Your task to perform on an android device: toggle javascript in the chrome app Image 0: 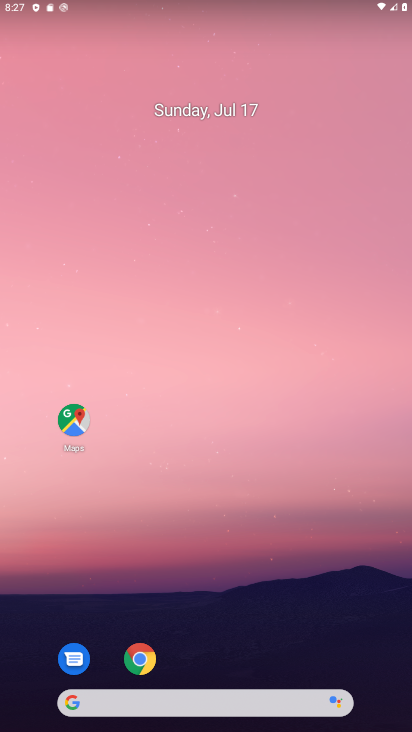
Step 0: click (140, 661)
Your task to perform on an android device: toggle javascript in the chrome app Image 1: 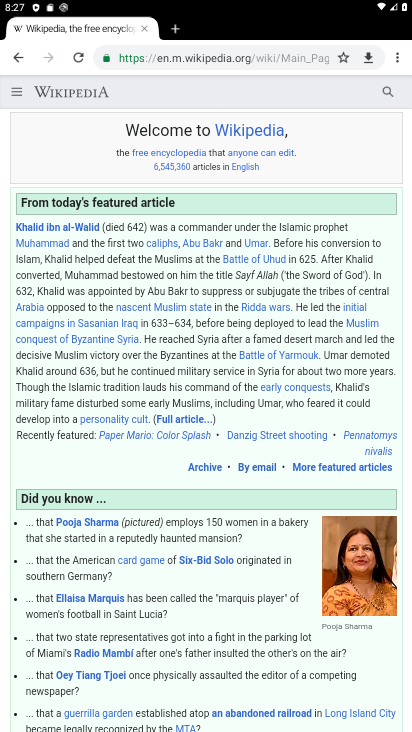
Step 1: click (397, 57)
Your task to perform on an android device: toggle javascript in the chrome app Image 2: 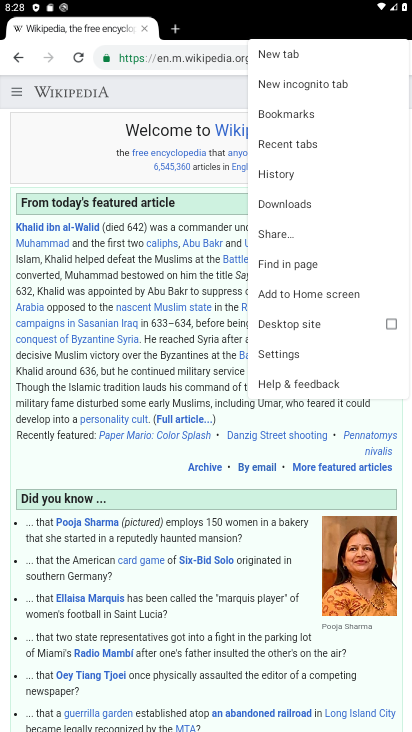
Step 2: click (285, 356)
Your task to perform on an android device: toggle javascript in the chrome app Image 3: 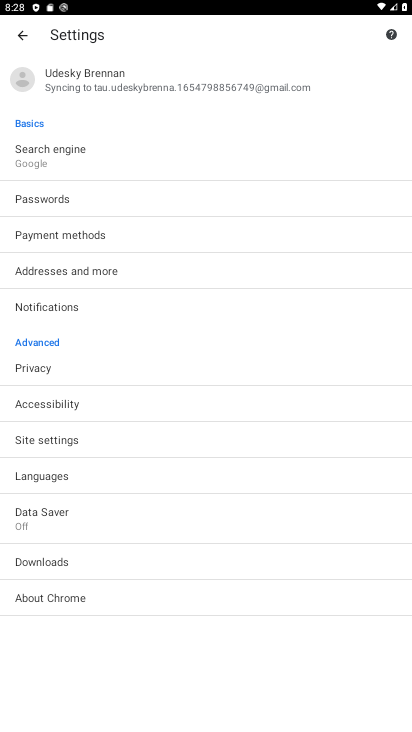
Step 3: click (70, 438)
Your task to perform on an android device: toggle javascript in the chrome app Image 4: 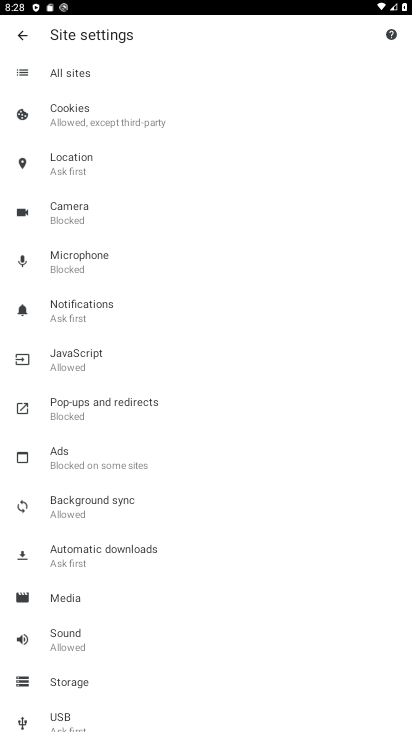
Step 4: click (76, 358)
Your task to perform on an android device: toggle javascript in the chrome app Image 5: 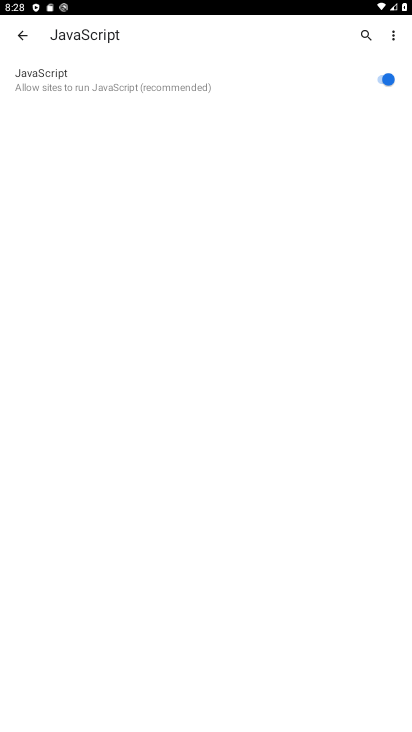
Step 5: click (389, 79)
Your task to perform on an android device: toggle javascript in the chrome app Image 6: 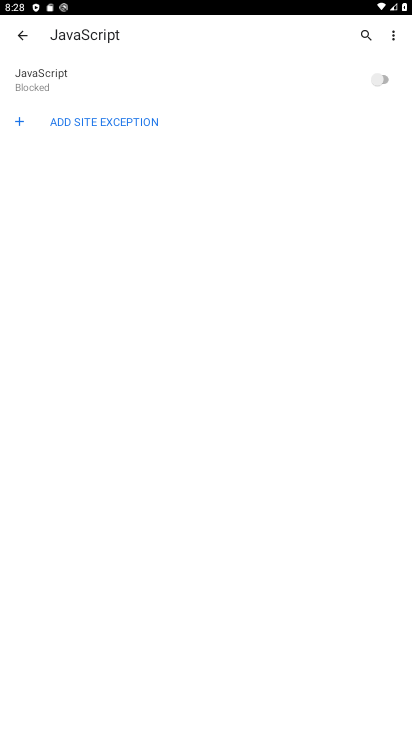
Step 6: task complete